Your task to perform on an android device: Open my contact list Image 0: 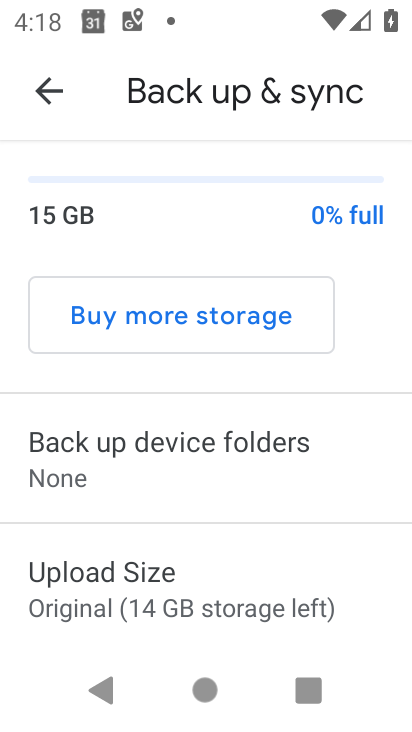
Step 0: press home button
Your task to perform on an android device: Open my contact list Image 1: 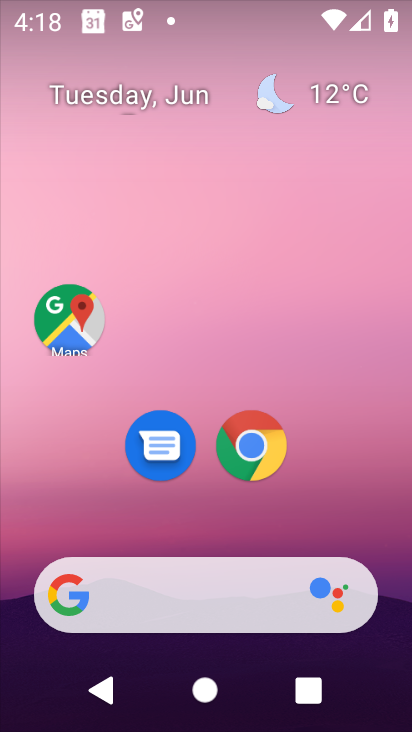
Step 1: drag from (308, 476) to (304, 3)
Your task to perform on an android device: Open my contact list Image 2: 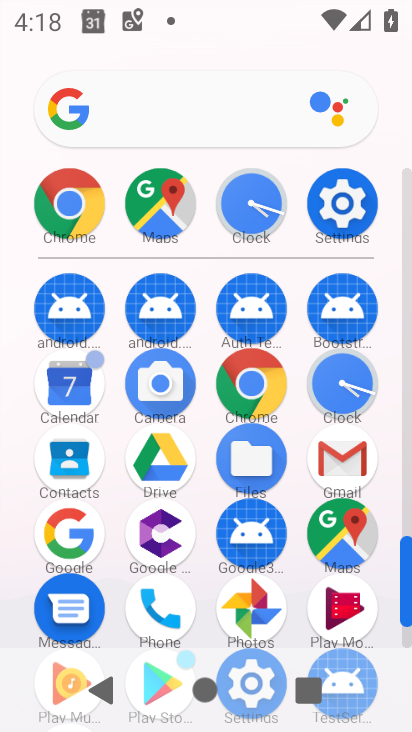
Step 2: click (161, 606)
Your task to perform on an android device: Open my contact list Image 3: 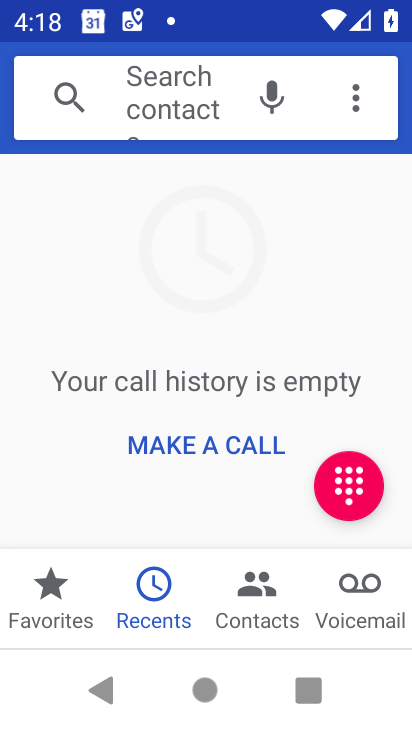
Step 3: click (236, 594)
Your task to perform on an android device: Open my contact list Image 4: 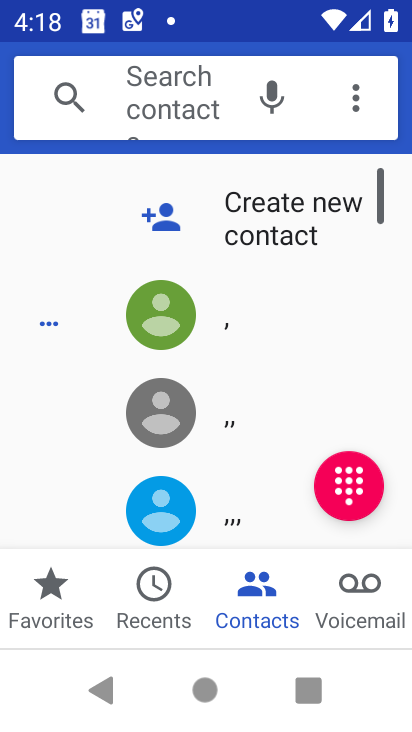
Step 4: task complete